Your task to perform on an android device: Turn off the flashlight Image 0: 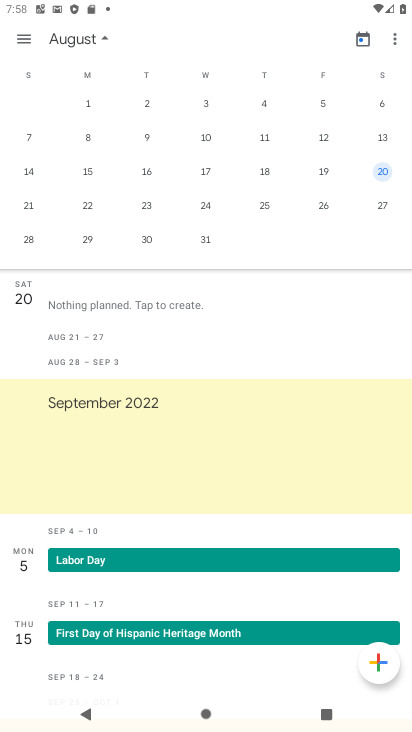
Step 0: press home button
Your task to perform on an android device: Turn off the flashlight Image 1: 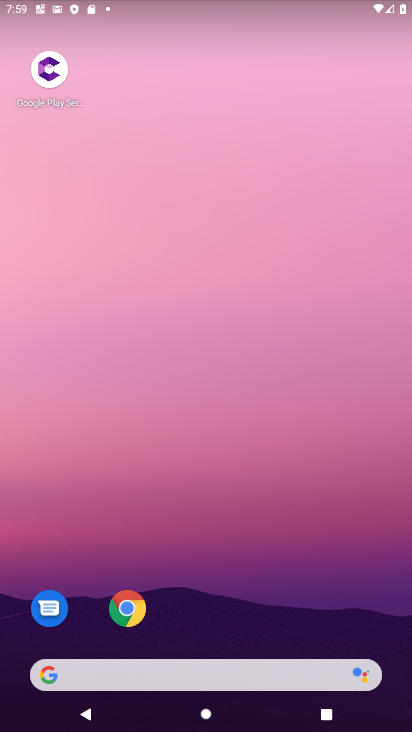
Step 1: drag from (268, 394) to (322, 65)
Your task to perform on an android device: Turn off the flashlight Image 2: 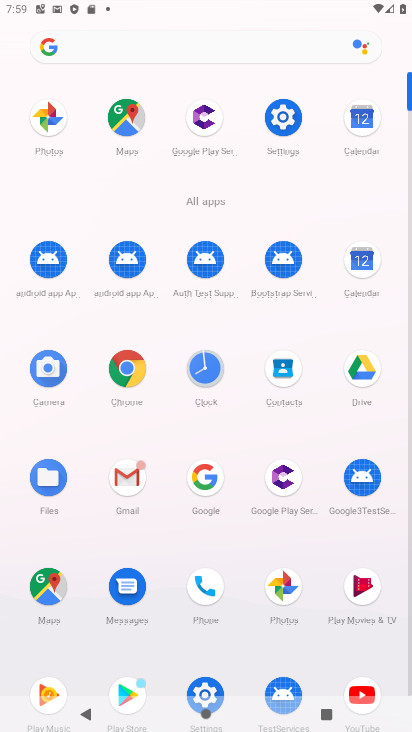
Step 2: click (287, 115)
Your task to perform on an android device: Turn off the flashlight Image 3: 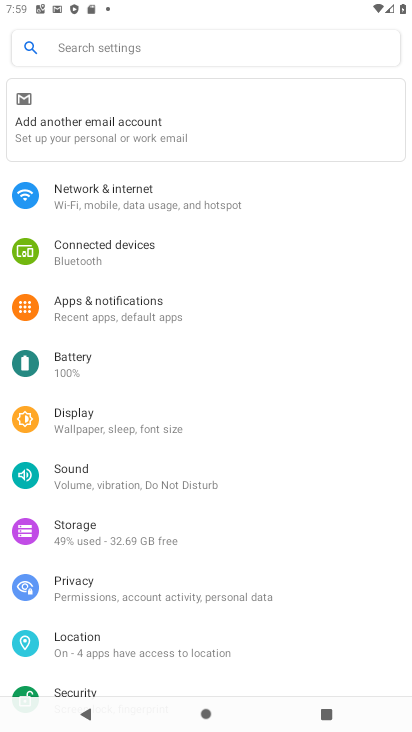
Step 3: click (141, 424)
Your task to perform on an android device: Turn off the flashlight Image 4: 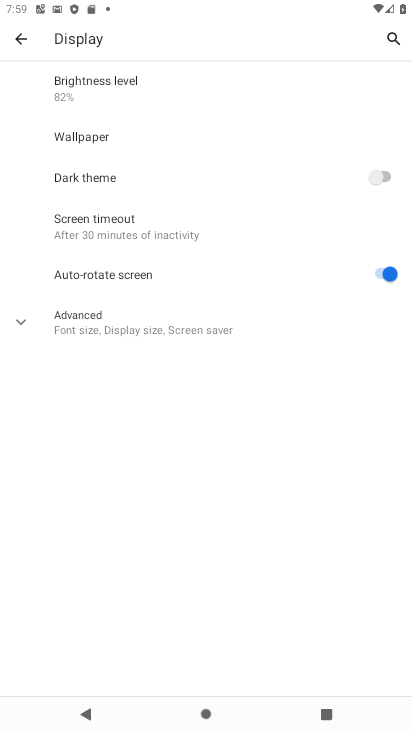
Step 4: click (20, 40)
Your task to perform on an android device: Turn off the flashlight Image 5: 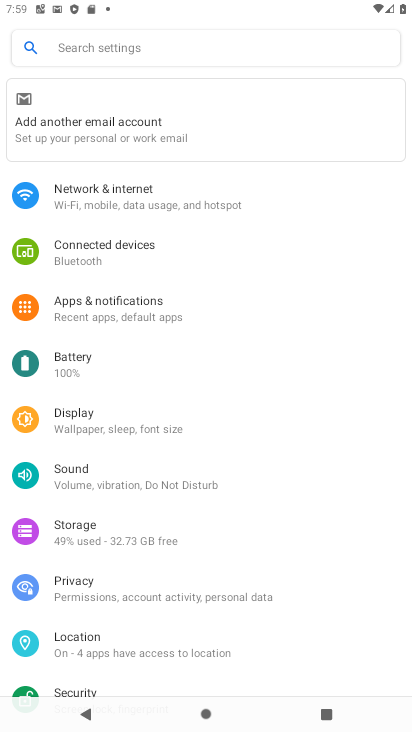
Step 5: click (121, 362)
Your task to perform on an android device: Turn off the flashlight Image 6: 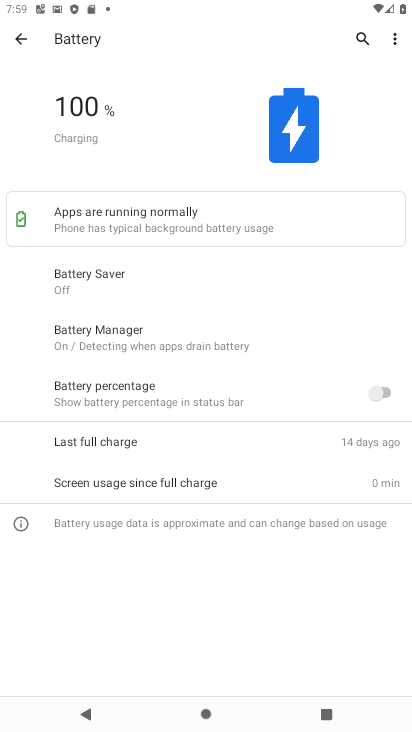
Step 6: task complete